Your task to perform on an android device: turn on javascript in the chrome app Image 0: 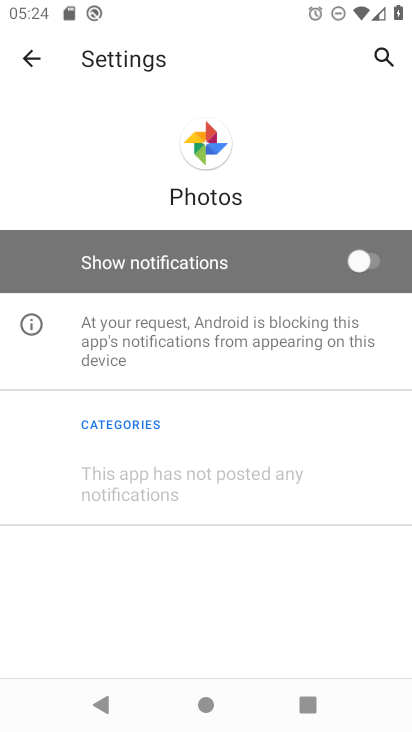
Step 0: press home button
Your task to perform on an android device: turn on javascript in the chrome app Image 1: 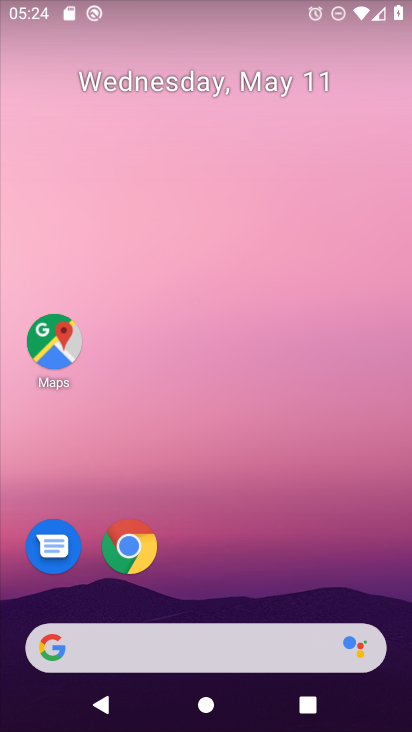
Step 1: drag from (300, 668) to (333, 16)
Your task to perform on an android device: turn on javascript in the chrome app Image 2: 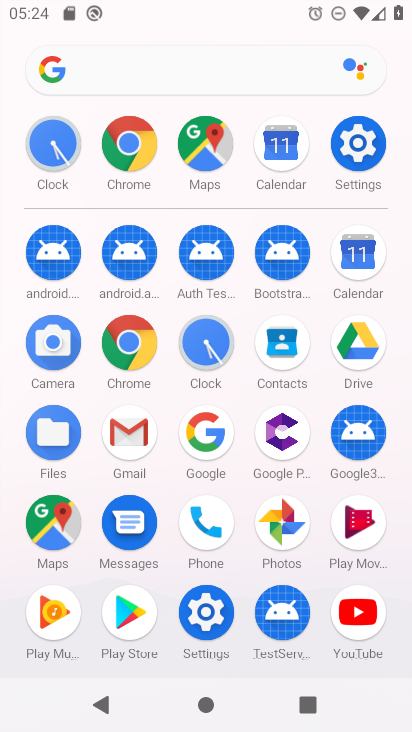
Step 2: click (125, 336)
Your task to perform on an android device: turn on javascript in the chrome app Image 3: 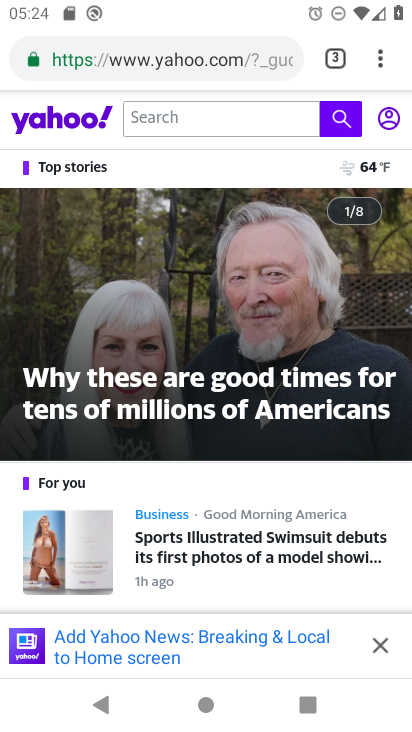
Step 3: drag from (369, 85) to (190, 574)
Your task to perform on an android device: turn on javascript in the chrome app Image 4: 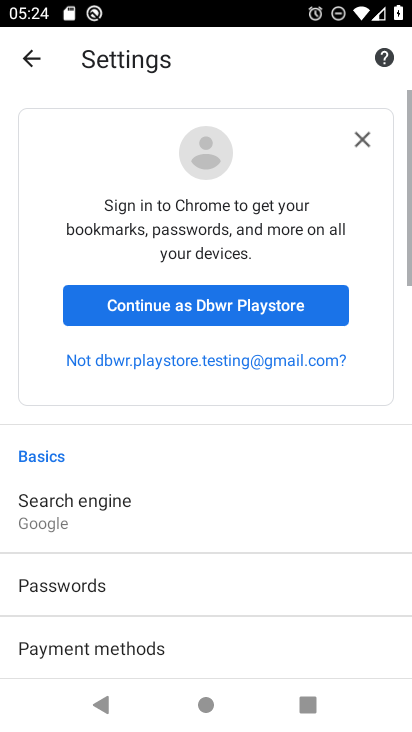
Step 4: drag from (196, 628) to (155, 84)
Your task to perform on an android device: turn on javascript in the chrome app Image 5: 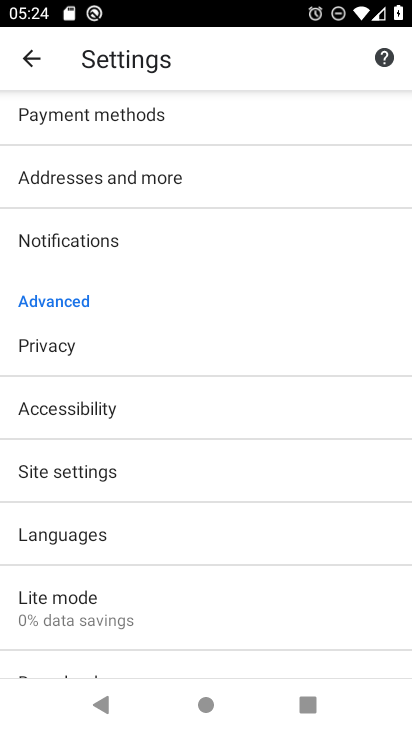
Step 5: drag from (184, 670) to (216, 270)
Your task to perform on an android device: turn on javascript in the chrome app Image 6: 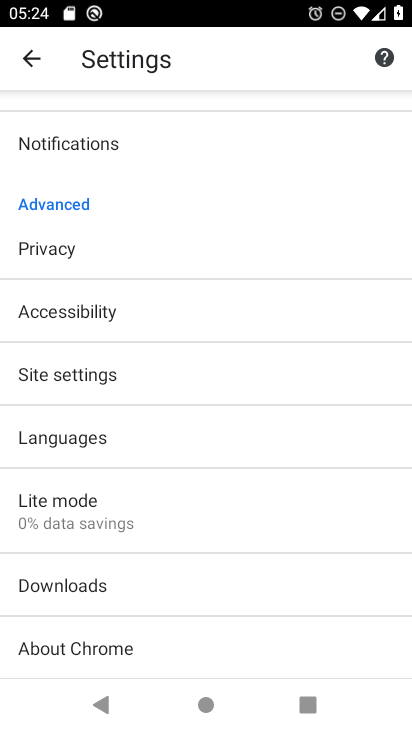
Step 6: click (100, 384)
Your task to perform on an android device: turn on javascript in the chrome app Image 7: 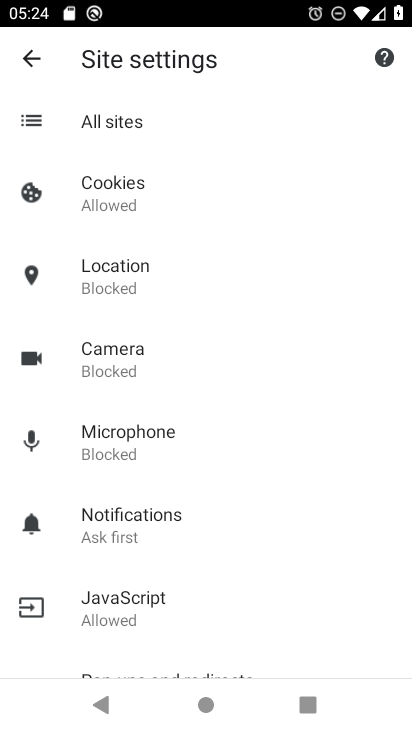
Step 7: click (157, 611)
Your task to perform on an android device: turn on javascript in the chrome app Image 8: 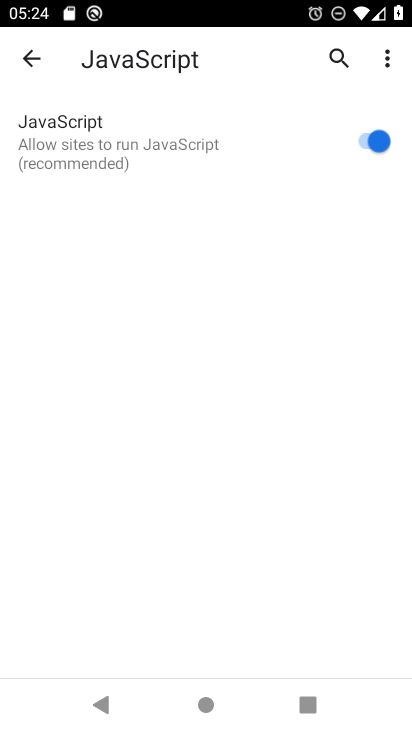
Step 8: task complete